Your task to perform on an android device: Find coffee shops on Maps Image 0: 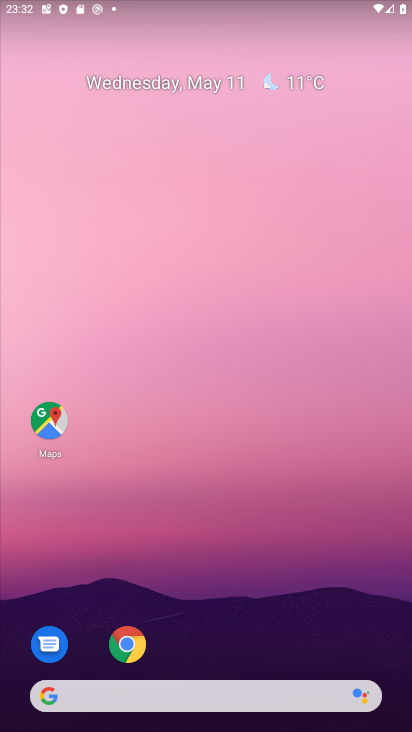
Step 0: click (48, 417)
Your task to perform on an android device: Find coffee shops on Maps Image 1: 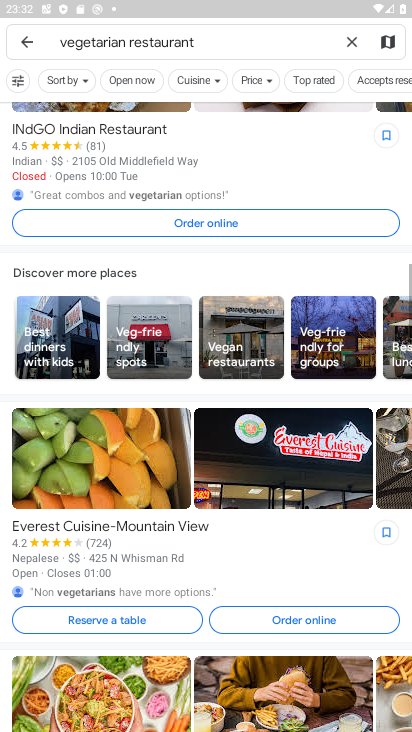
Step 1: click (354, 41)
Your task to perform on an android device: Find coffee shops on Maps Image 2: 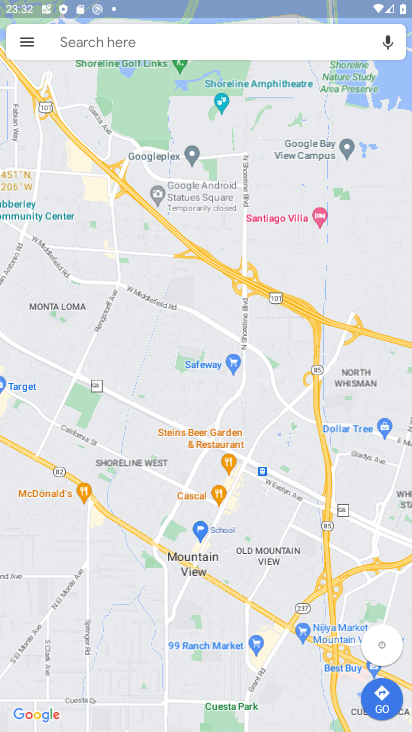
Step 2: click (99, 39)
Your task to perform on an android device: Find coffee shops on Maps Image 3: 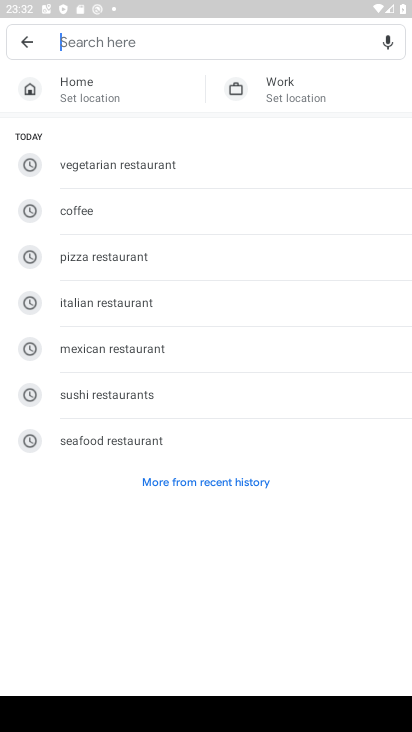
Step 3: type "coffee"
Your task to perform on an android device: Find coffee shops on Maps Image 4: 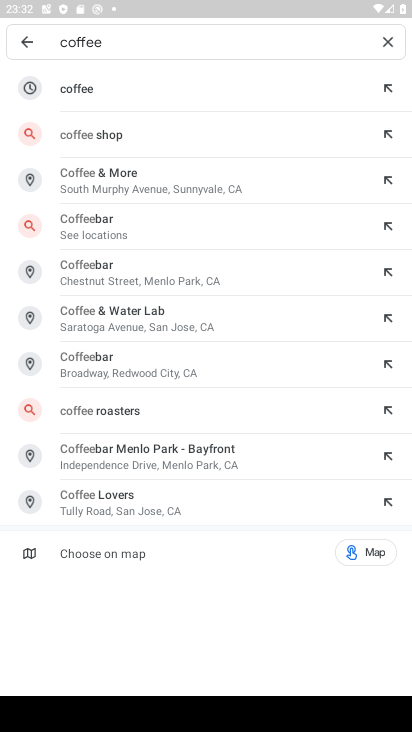
Step 4: click (109, 88)
Your task to perform on an android device: Find coffee shops on Maps Image 5: 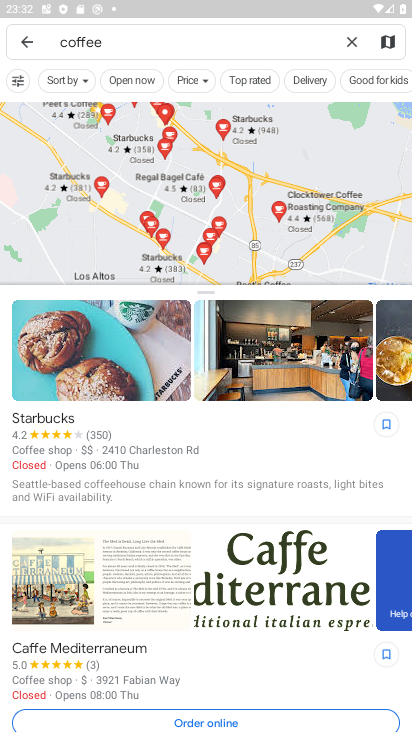
Step 5: drag from (168, 638) to (177, 265)
Your task to perform on an android device: Find coffee shops on Maps Image 6: 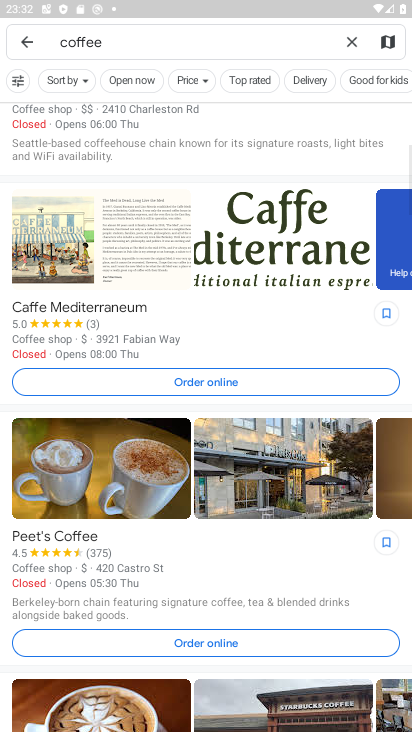
Step 6: drag from (193, 604) to (197, 148)
Your task to perform on an android device: Find coffee shops on Maps Image 7: 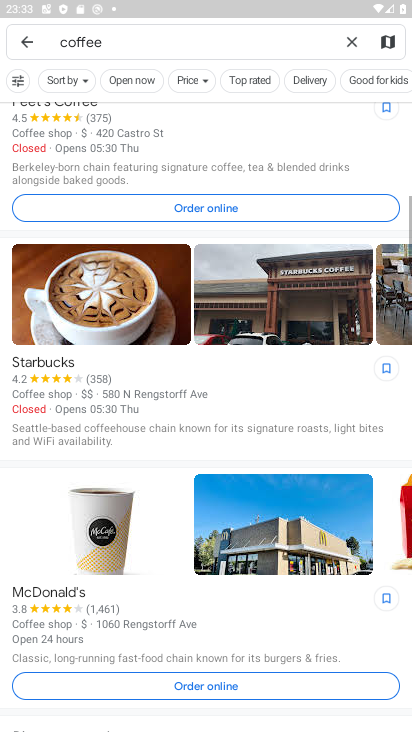
Step 7: drag from (216, 637) to (213, 307)
Your task to perform on an android device: Find coffee shops on Maps Image 8: 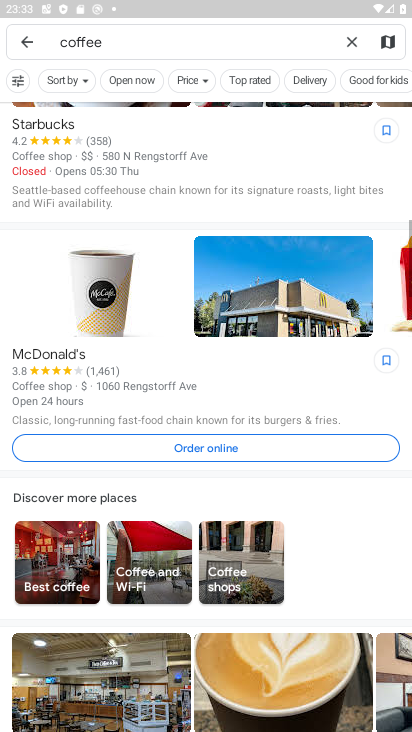
Step 8: click (213, 124)
Your task to perform on an android device: Find coffee shops on Maps Image 9: 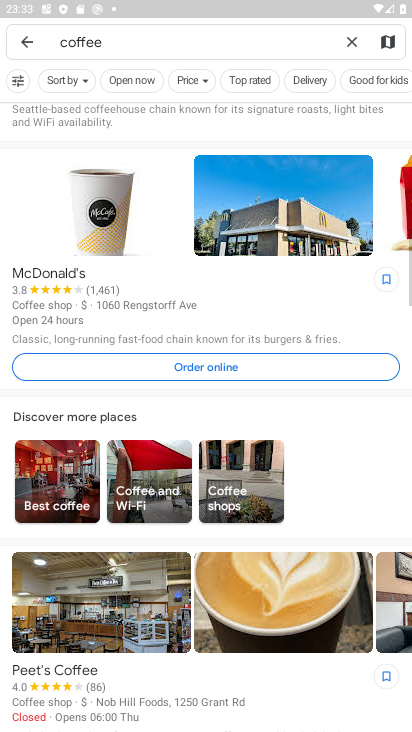
Step 9: task complete